Your task to perform on an android device: Go to notification settings Image 0: 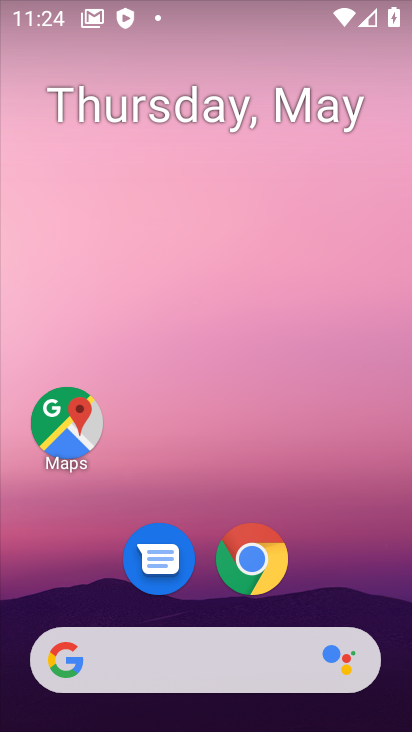
Step 0: drag from (221, 720) to (223, 135)
Your task to perform on an android device: Go to notification settings Image 1: 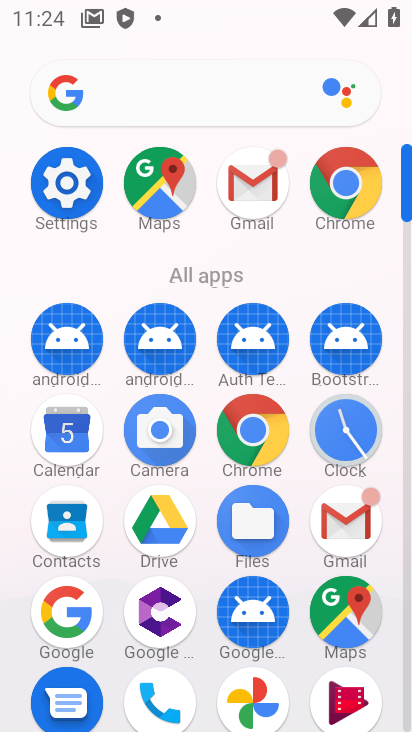
Step 1: click (65, 187)
Your task to perform on an android device: Go to notification settings Image 2: 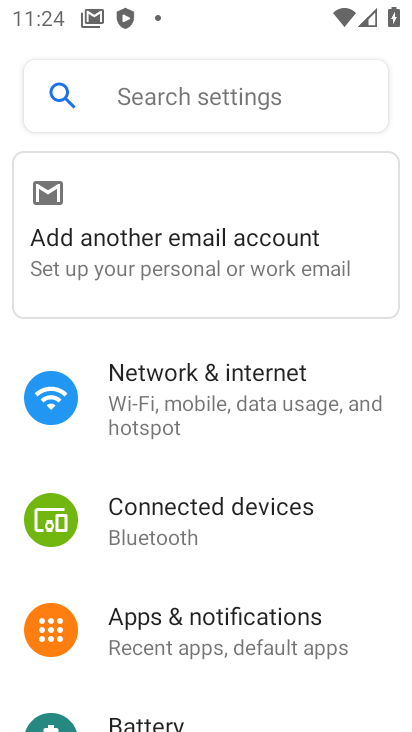
Step 2: click (230, 635)
Your task to perform on an android device: Go to notification settings Image 3: 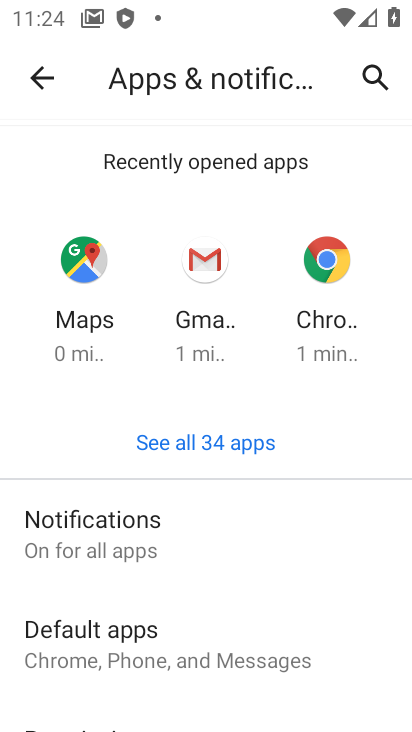
Step 3: click (97, 528)
Your task to perform on an android device: Go to notification settings Image 4: 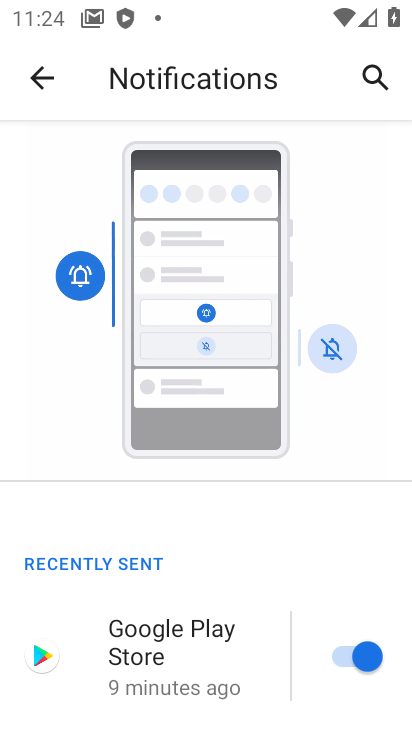
Step 4: task complete